Your task to perform on an android device: Search for Mexican restaurants on Maps Image 0: 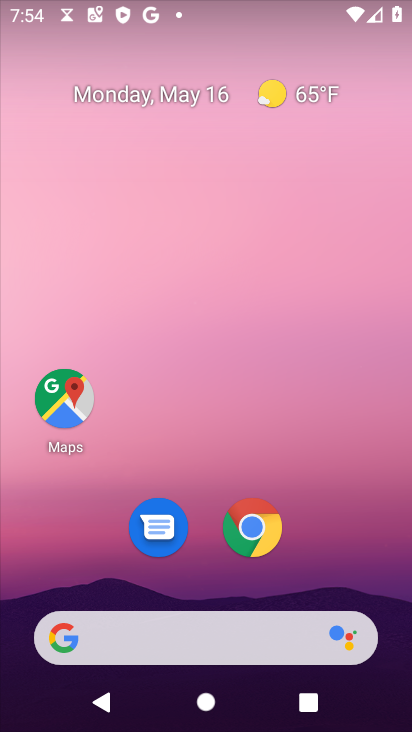
Step 0: click (81, 385)
Your task to perform on an android device: Search for Mexican restaurants on Maps Image 1: 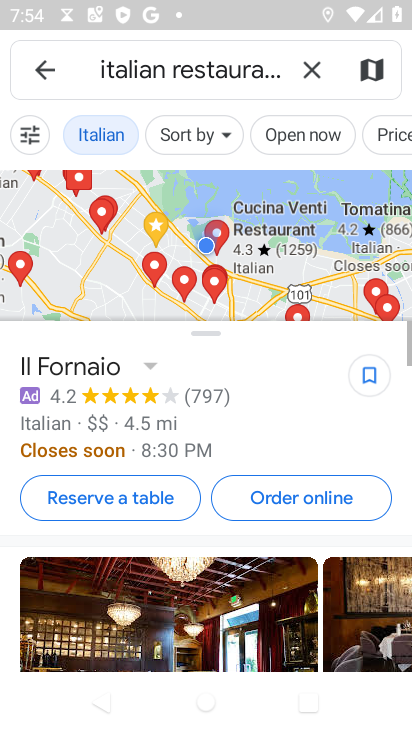
Step 1: click (303, 64)
Your task to perform on an android device: Search for Mexican restaurants on Maps Image 2: 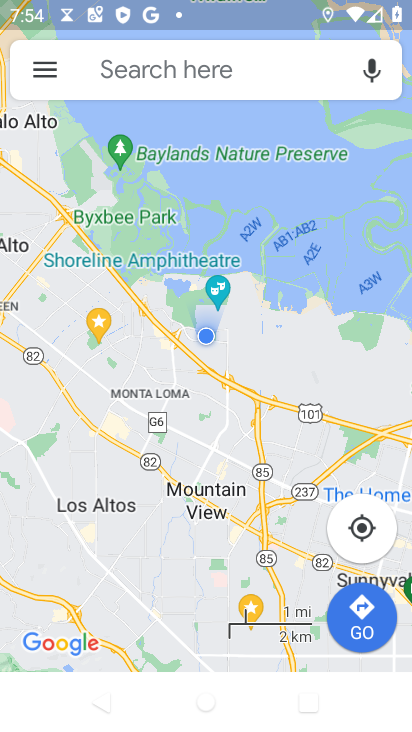
Step 2: click (141, 67)
Your task to perform on an android device: Search for Mexican restaurants on Maps Image 3: 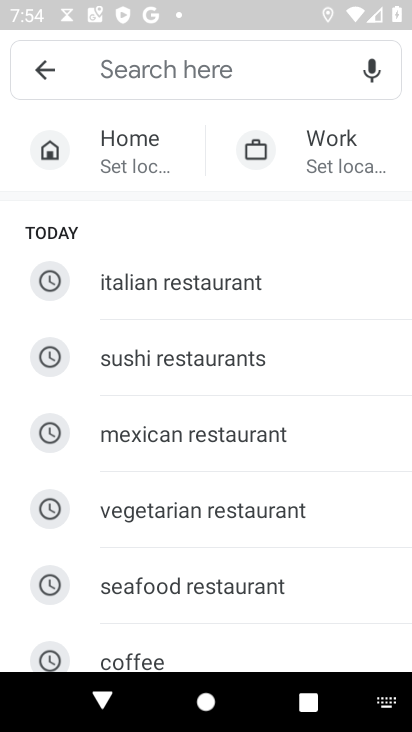
Step 3: click (206, 430)
Your task to perform on an android device: Search for Mexican restaurants on Maps Image 4: 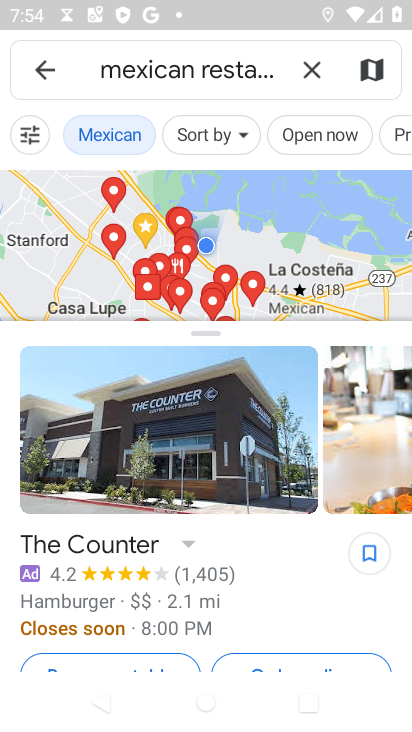
Step 4: task complete